Your task to perform on an android device: Go to eBay Image 0: 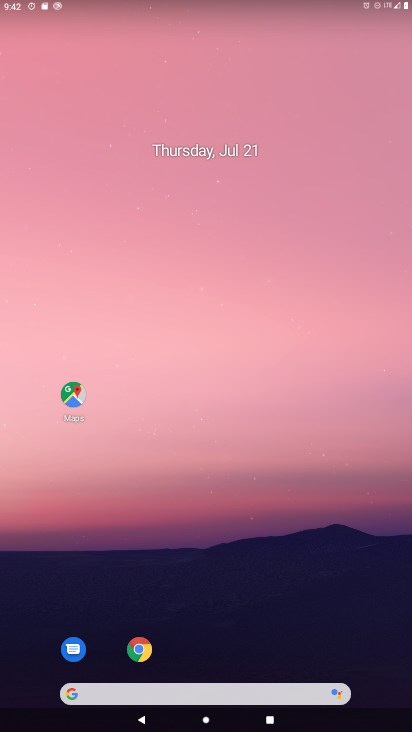
Step 0: drag from (354, 639) to (165, 42)
Your task to perform on an android device: Go to eBay Image 1: 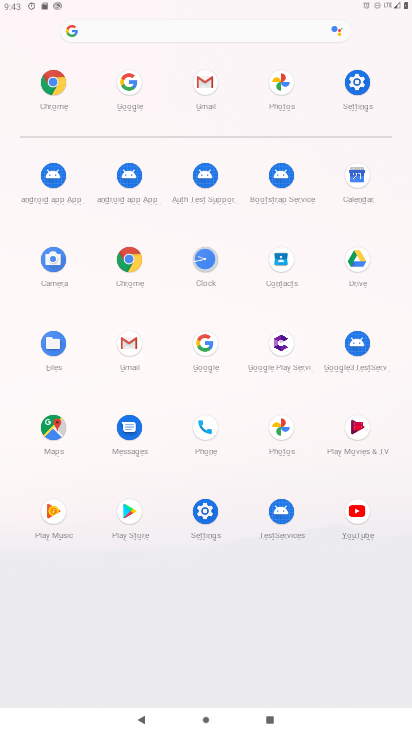
Step 1: click (204, 335)
Your task to perform on an android device: Go to eBay Image 2: 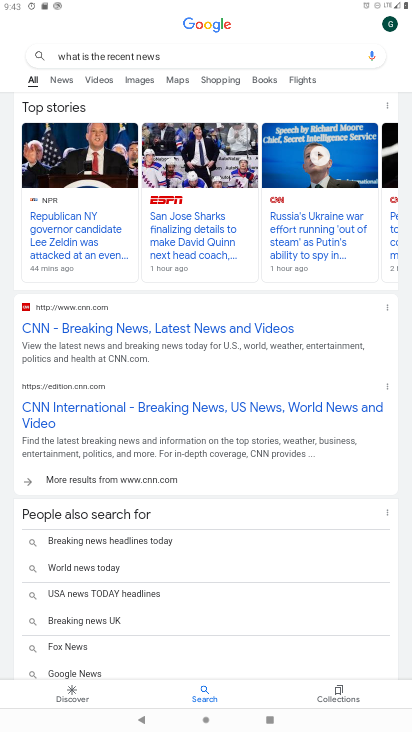
Step 2: press back button
Your task to perform on an android device: Go to eBay Image 3: 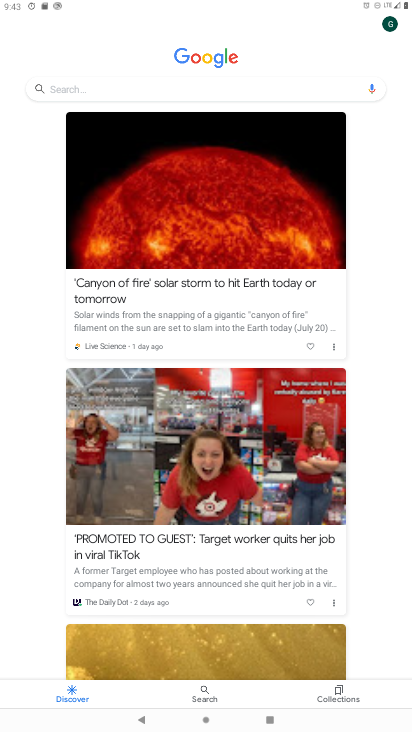
Step 3: click (97, 92)
Your task to perform on an android device: Go to eBay Image 4: 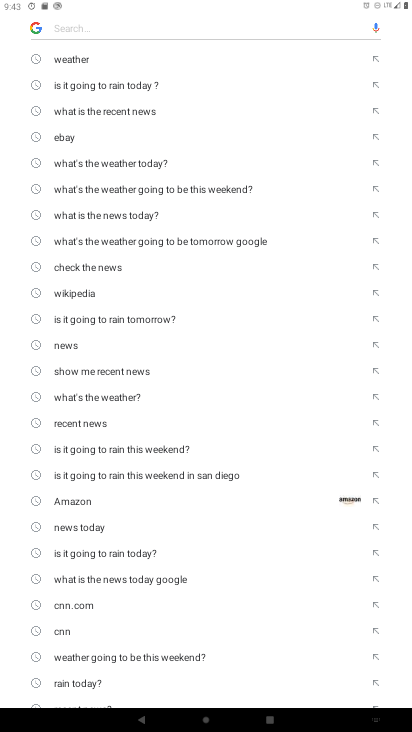
Step 4: click (79, 126)
Your task to perform on an android device: Go to eBay Image 5: 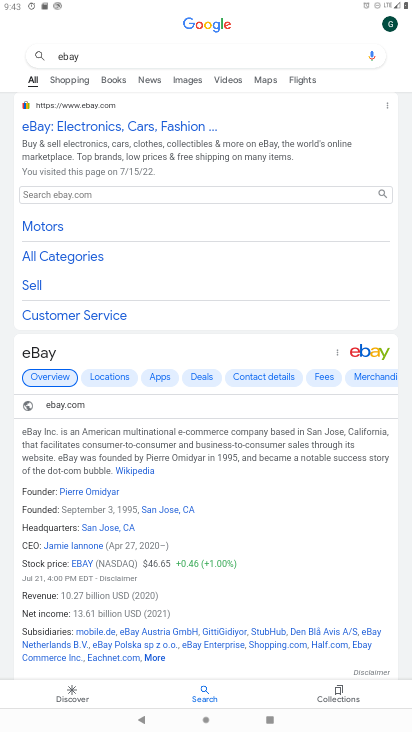
Step 5: task complete